Your task to perform on an android device: change notification settings in the gmail app Image 0: 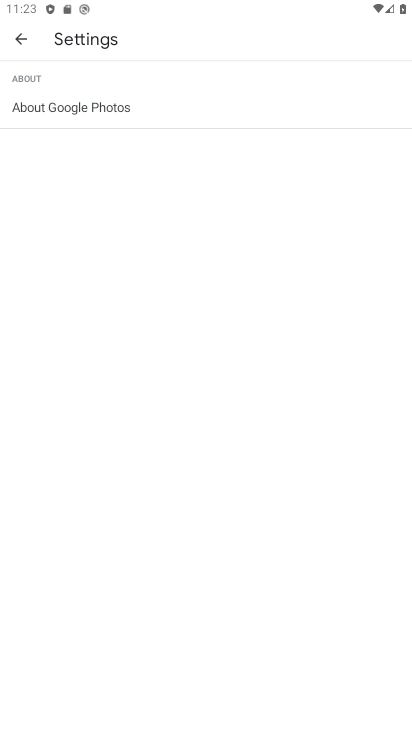
Step 0: drag from (254, 689) to (217, 306)
Your task to perform on an android device: change notification settings in the gmail app Image 1: 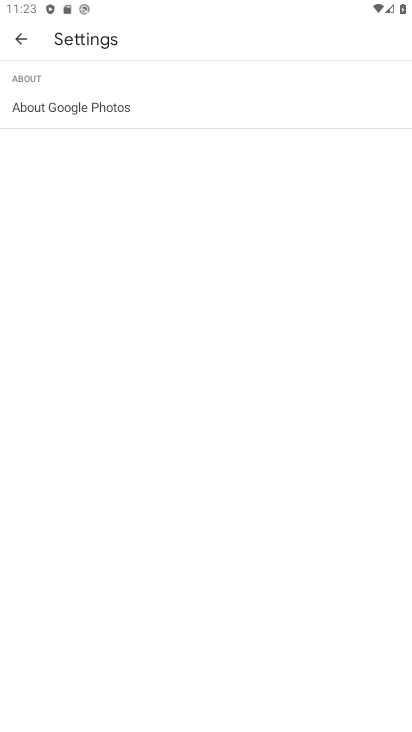
Step 1: click (20, 32)
Your task to perform on an android device: change notification settings in the gmail app Image 2: 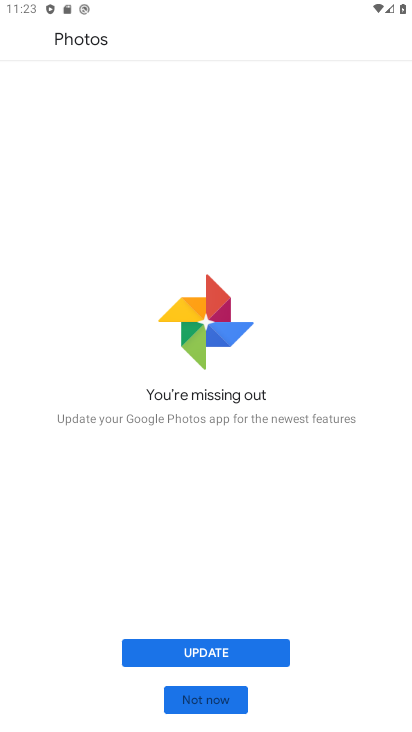
Step 2: click (210, 706)
Your task to perform on an android device: change notification settings in the gmail app Image 3: 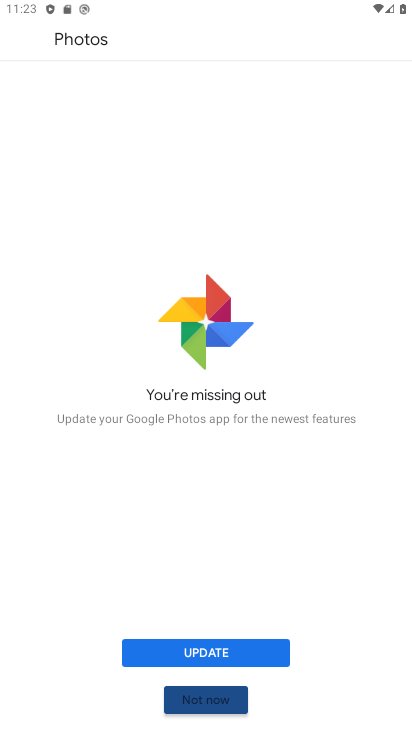
Step 3: click (211, 704)
Your task to perform on an android device: change notification settings in the gmail app Image 4: 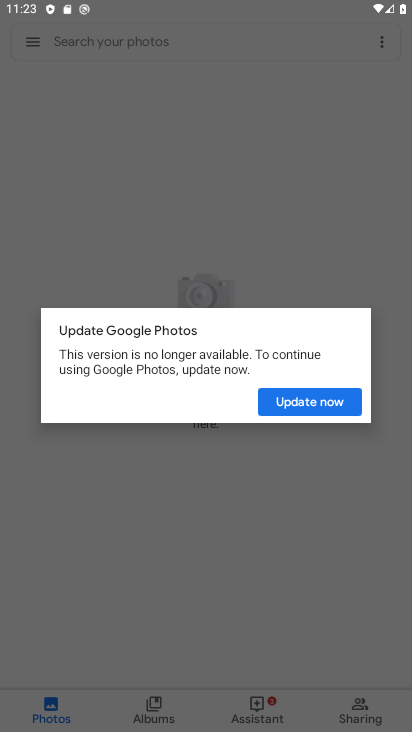
Step 4: click (300, 201)
Your task to perform on an android device: change notification settings in the gmail app Image 5: 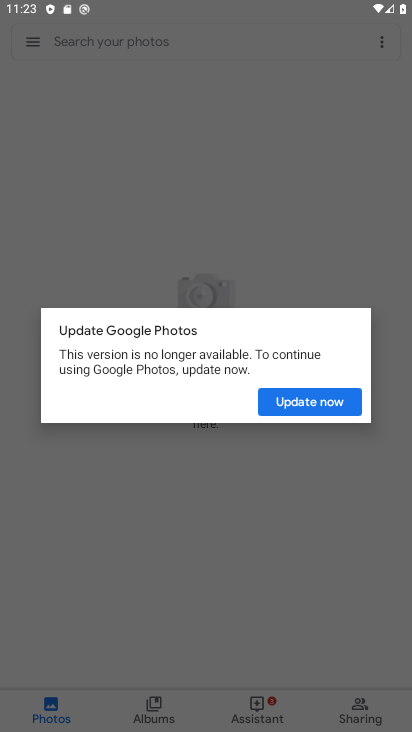
Step 5: click (300, 201)
Your task to perform on an android device: change notification settings in the gmail app Image 6: 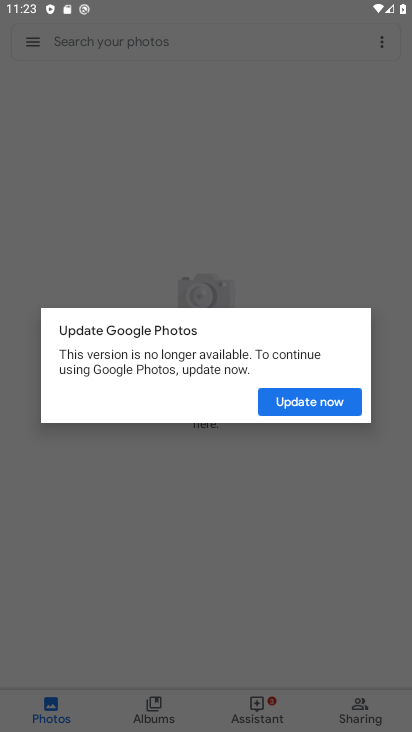
Step 6: click (300, 201)
Your task to perform on an android device: change notification settings in the gmail app Image 7: 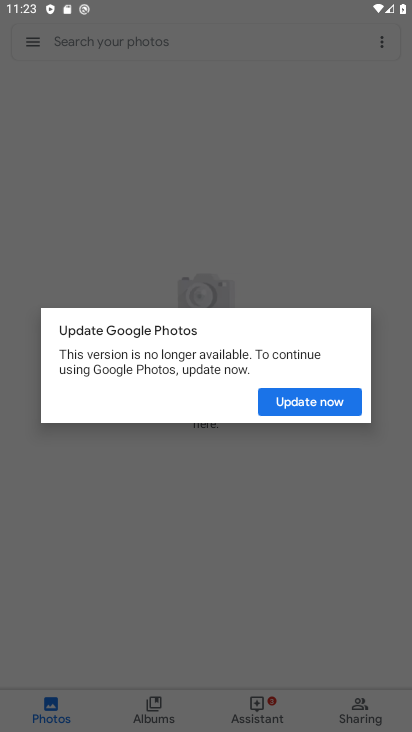
Step 7: press back button
Your task to perform on an android device: change notification settings in the gmail app Image 8: 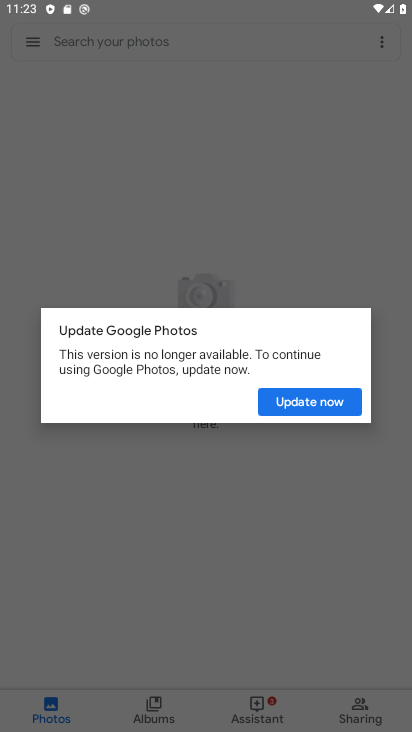
Step 8: press home button
Your task to perform on an android device: change notification settings in the gmail app Image 9: 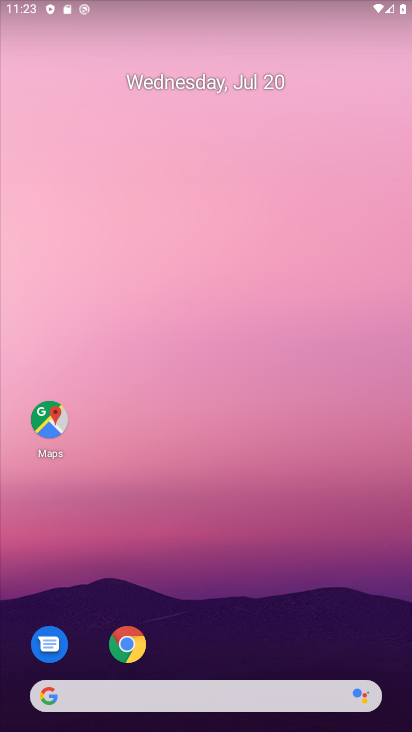
Step 9: drag from (209, 607) to (209, 151)
Your task to perform on an android device: change notification settings in the gmail app Image 10: 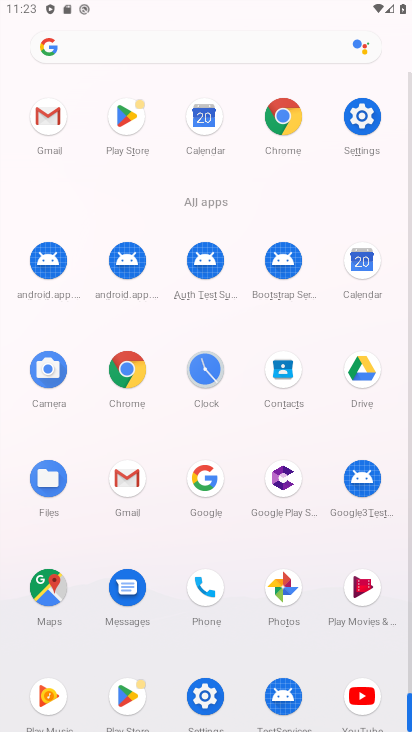
Step 10: click (125, 491)
Your task to perform on an android device: change notification settings in the gmail app Image 11: 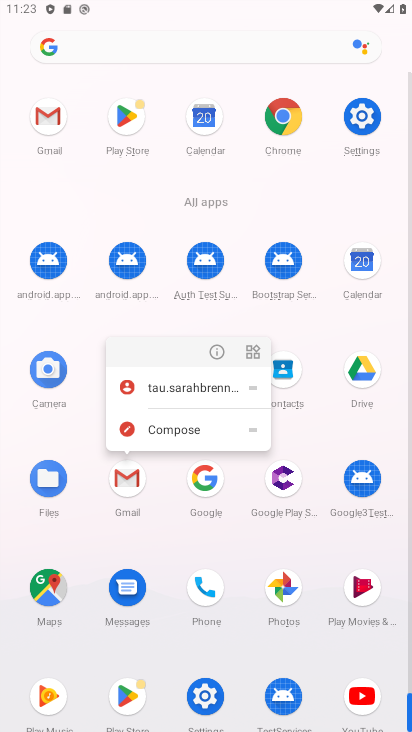
Step 11: click (127, 482)
Your task to perform on an android device: change notification settings in the gmail app Image 12: 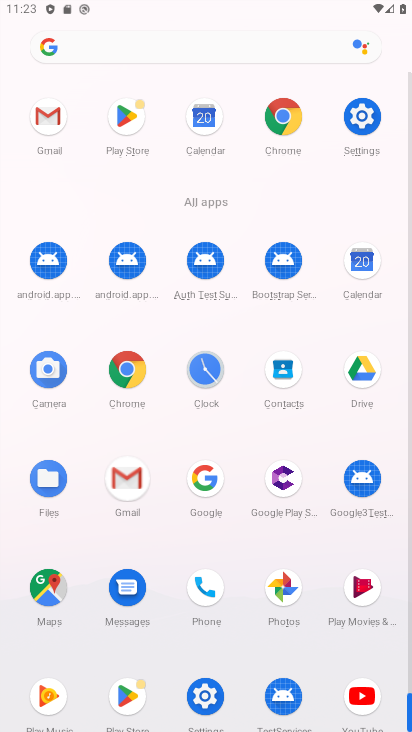
Step 12: click (125, 483)
Your task to perform on an android device: change notification settings in the gmail app Image 13: 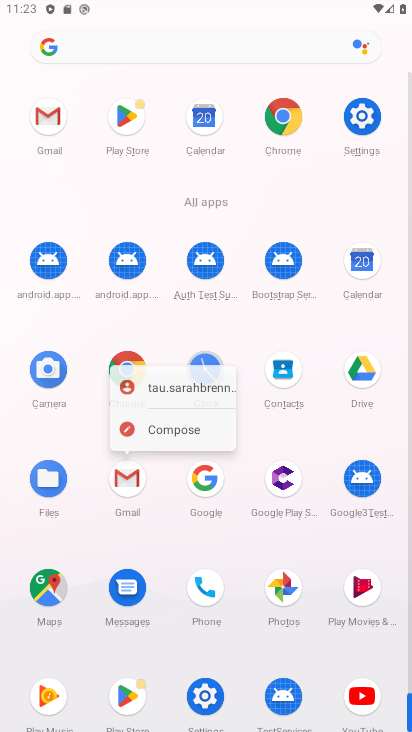
Step 13: click (125, 483)
Your task to perform on an android device: change notification settings in the gmail app Image 14: 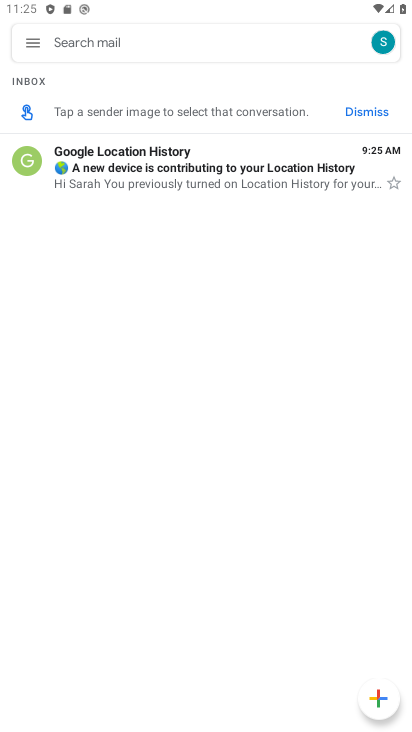
Step 14: click (37, 41)
Your task to perform on an android device: change notification settings in the gmail app Image 15: 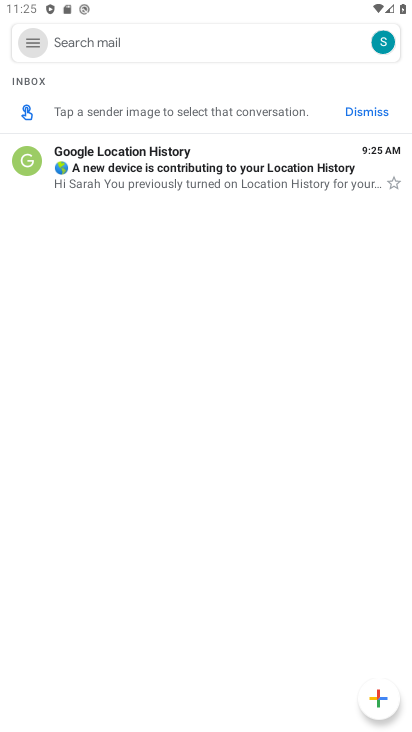
Step 15: click (37, 41)
Your task to perform on an android device: change notification settings in the gmail app Image 16: 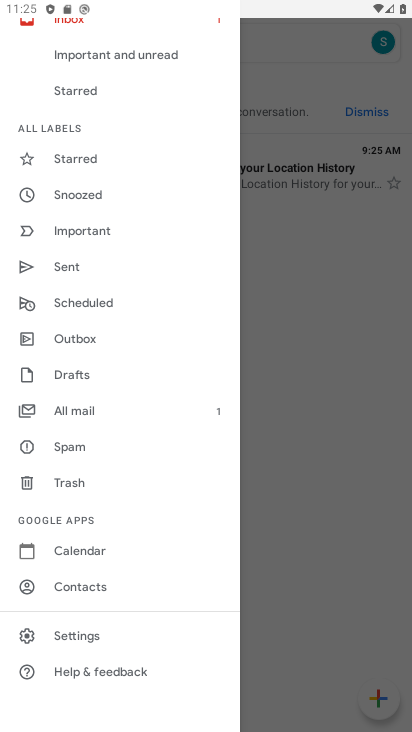
Step 16: click (84, 629)
Your task to perform on an android device: change notification settings in the gmail app Image 17: 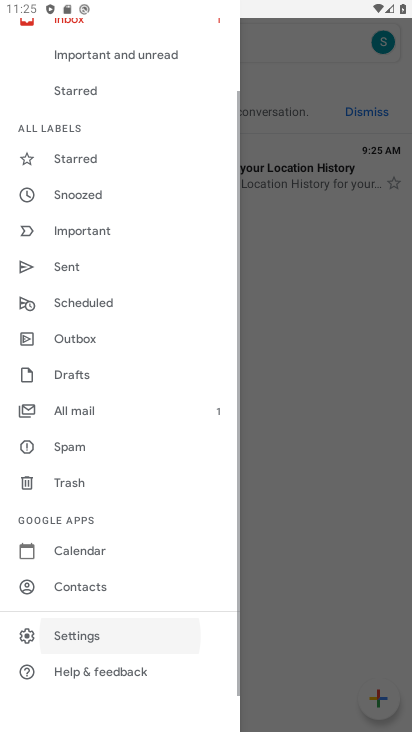
Step 17: click (83, 629)
Your task to perform on an android device: change notification settings in the gmail app Image 18: 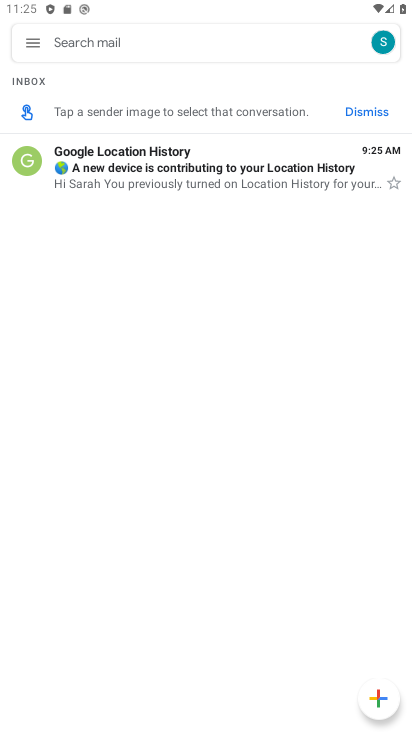
Step 18: click (83, 629)
Your task to perform on an android device: change notification settings in the gmail app Image 19: 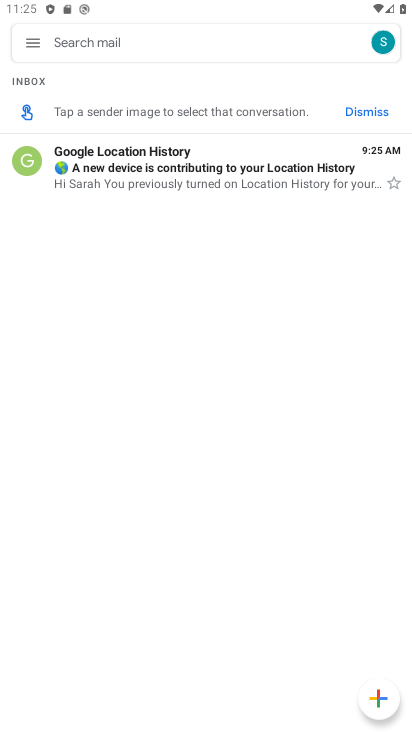
Step 19: click (83, 630)
Your task to perform on an android device: change notification settings in the gmail app Image 20: 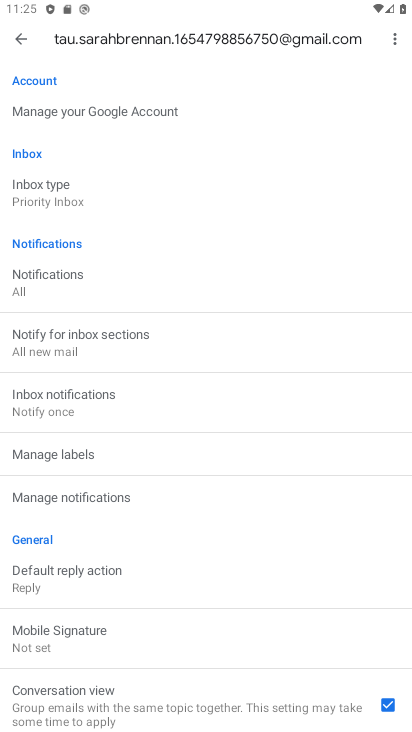
Step 20: click (33, 271)
Your task to perform on an android device: change notification settings in the gmail app Image 21: 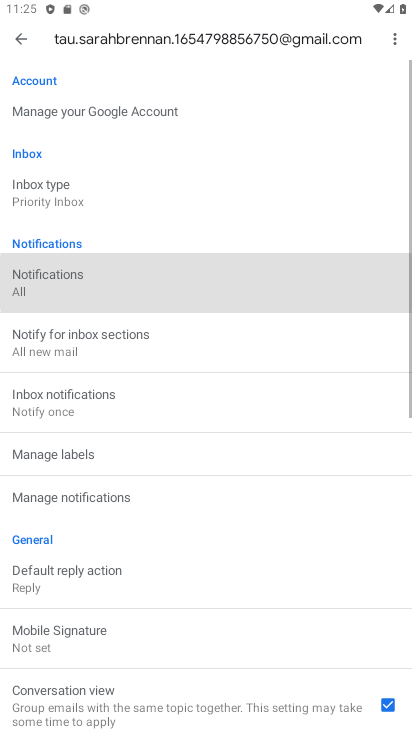
Step 21: click (32, 270)
Your task to perform on an android device: change notification settings in the gmail app Image 22: 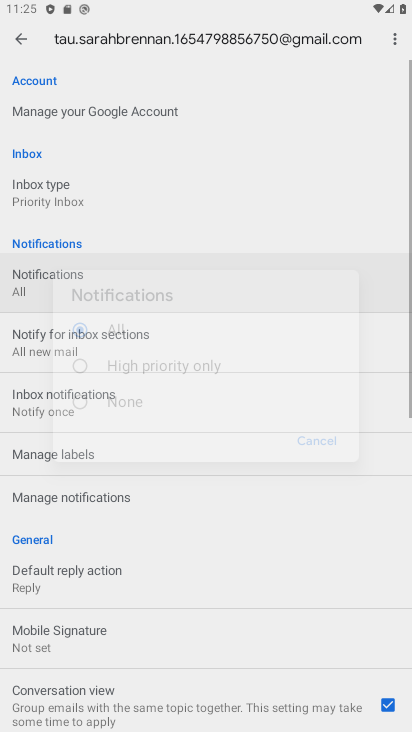
Step 22: click (32, 270)
Your task to perform on an android device: change notification settings in the gmail app Image 23: 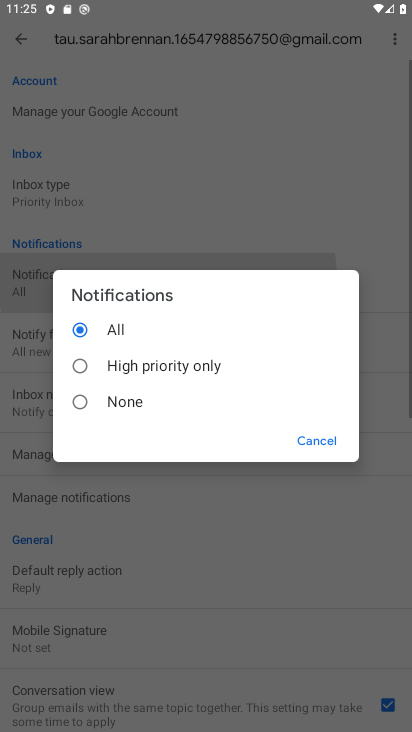
Step 23: click (33, 270)
Your task to perform on an android device: change notification settings in the gmail app Image 24: 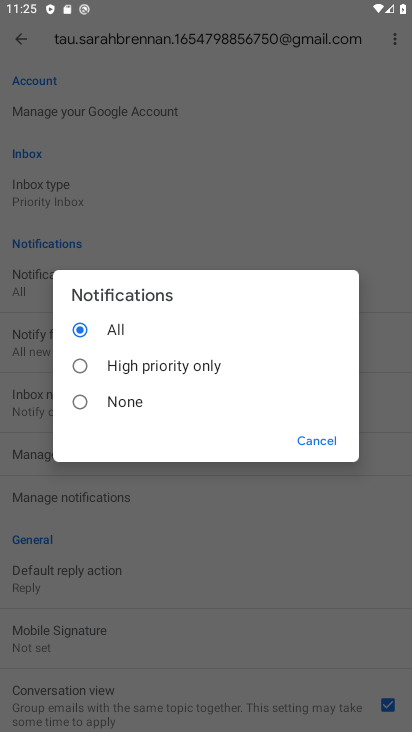
Step 24: click (76, 359)
Your task to perform on an android device: change notification settings in the gmail app Image 25: 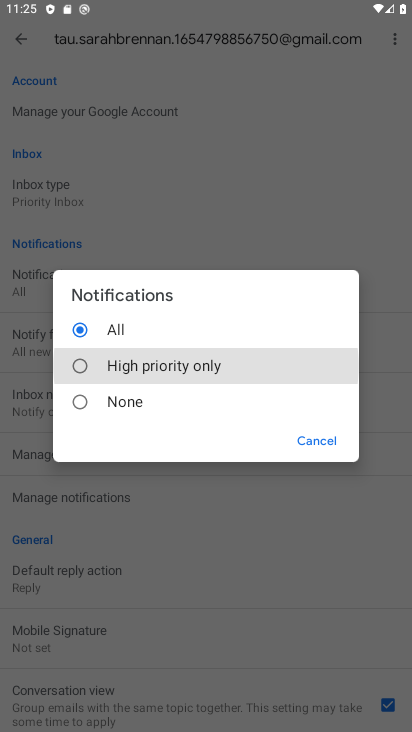
Step 25: click (83, 360)
Your task to perform on an android device: change notification settings in the gmail app Image 26: 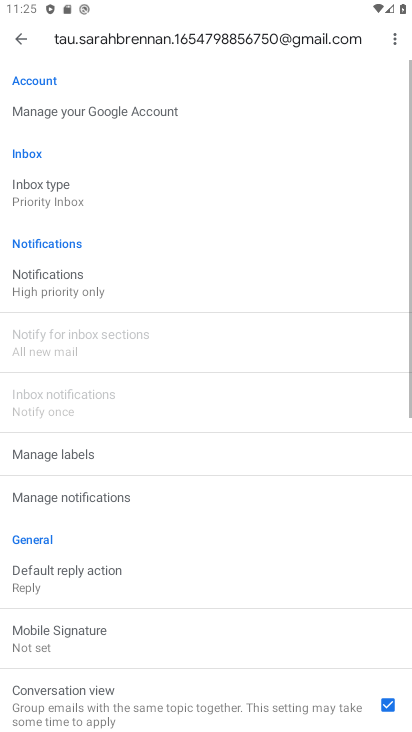
Step 26: task complete